Your task to perform on an android device: toggle sleep mode Image 0: 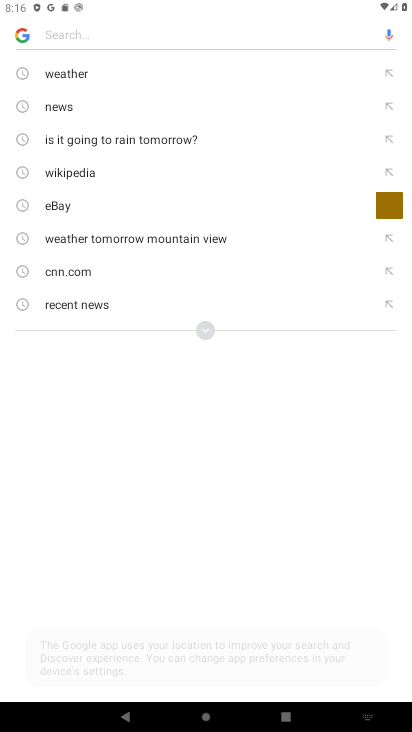
Step 0: press home button
Your task to perform on an android device: toggle sleep mode Image 1: 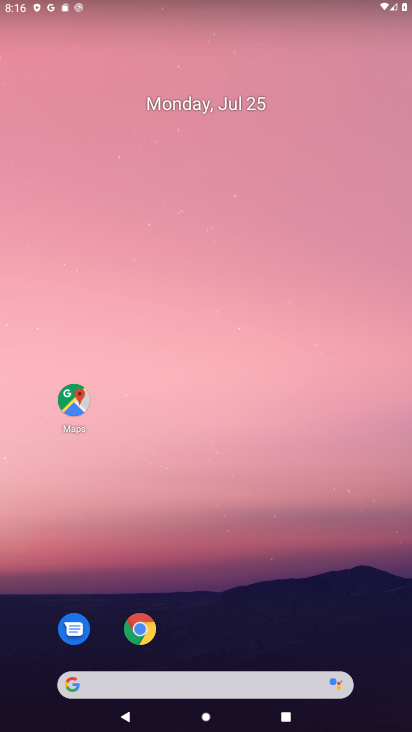
Step 1: drag from (260, 598) to (230, 175)
Your task to perform on an android device: toggle sleep mode Image 2: 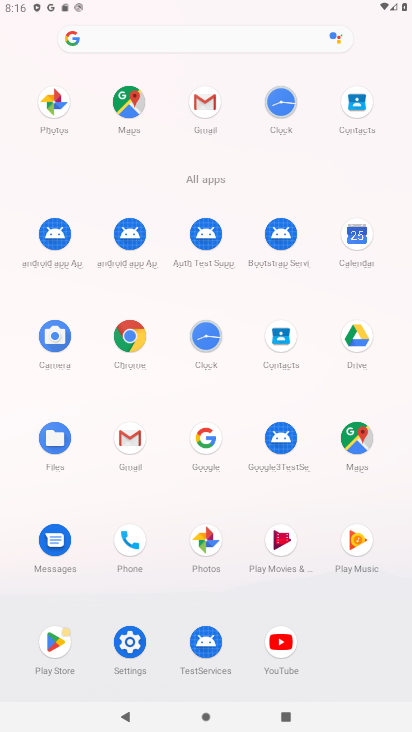
Step 2: click (131, 641)
Your task to perform on an android device: toggle sleep mode Image 3: 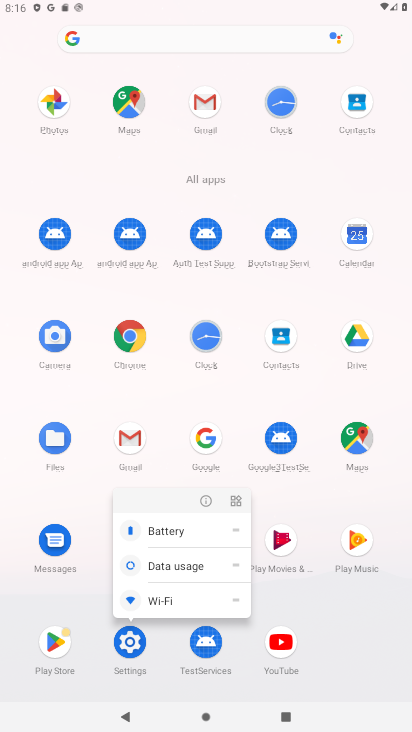
Step 3: click (131, 641)
Your task to perform on an android device: toggle sleep mode Image 4: 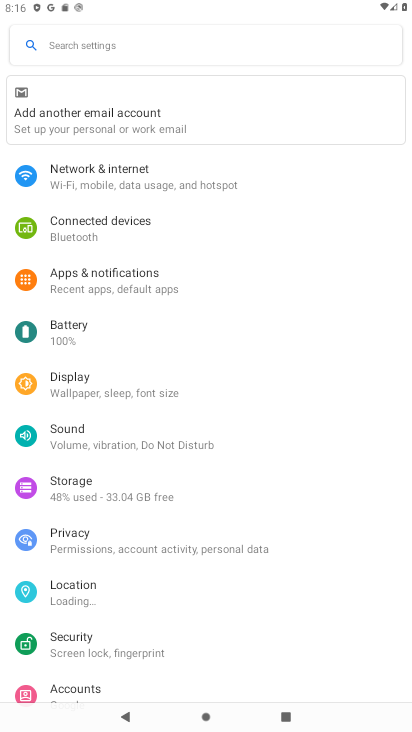
Step 4: click (158, 397)
Your task to perform on an android device: toggle sleep mode Image 5: 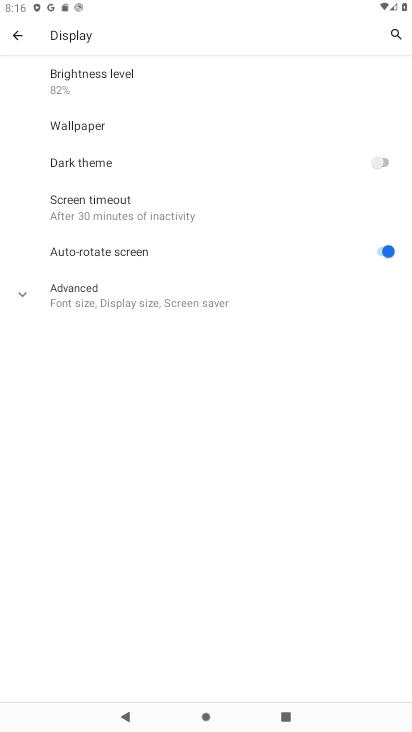
Step 5: click (179, 293)
Your task to perform on an android device: toggle sleep mode Image 6: 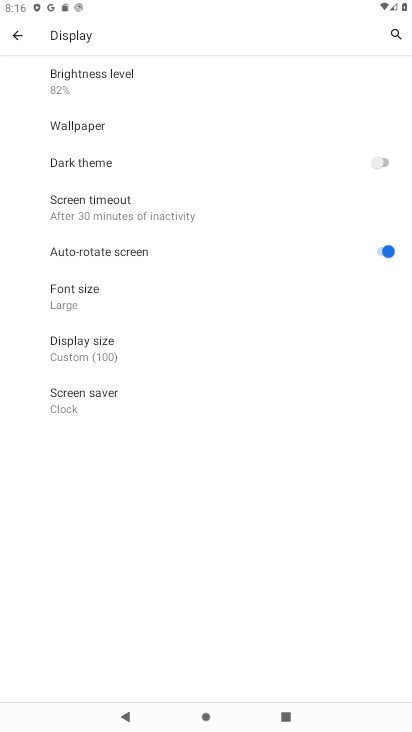
Step 6: task complete